Your task to perform on an android device: Open Amazon Image 0: 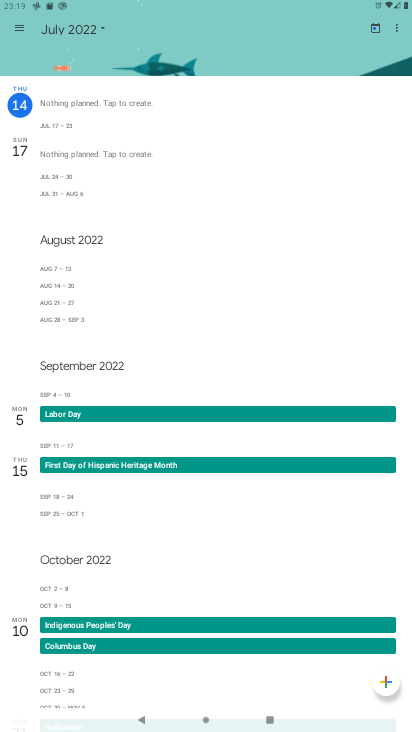
Step 0: press home button
Your task to perform on an android device: Open Amazon Image 1: 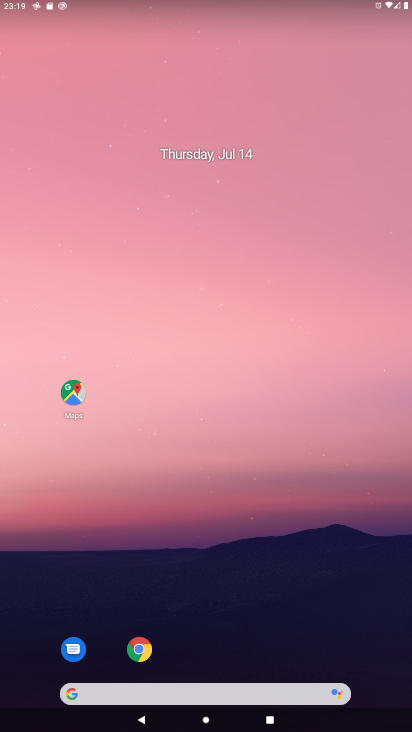
Step 1: click (140, 647)
Your task to perform on an android device: Open Amazon Image 2: 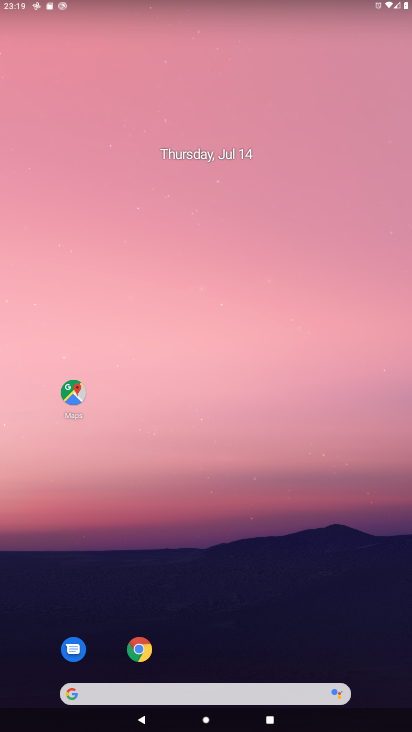
Step 2: click (140, 647)
Your task to perform on an android device: Open Amazon Image 3: 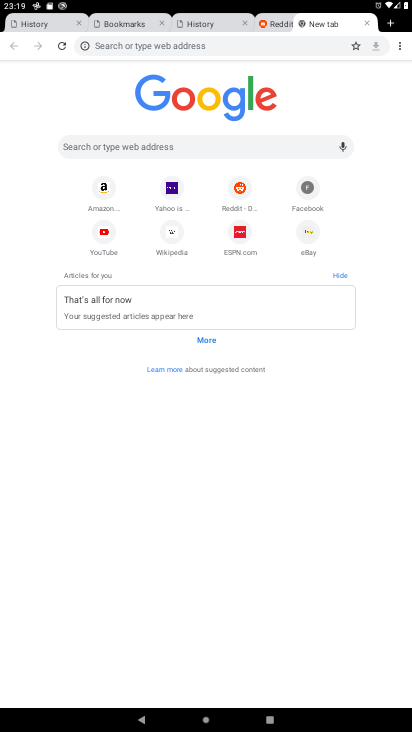
Step 3: click (101, 192)
Your task to perform on an android device: Open Amazon Image 4: 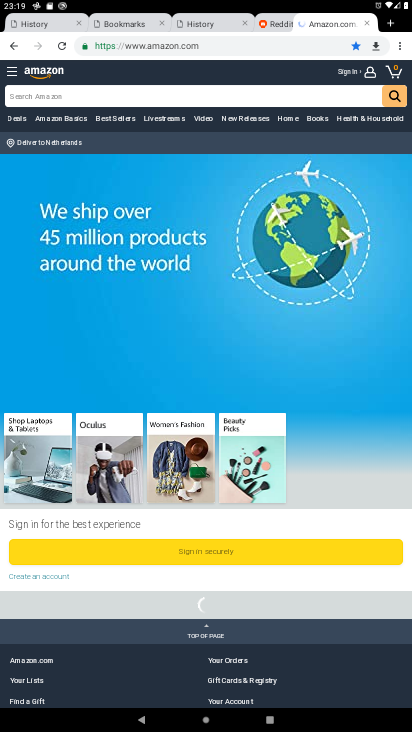
Step 4: task complete